Your task to perform on an android device: Open Google Image 0: 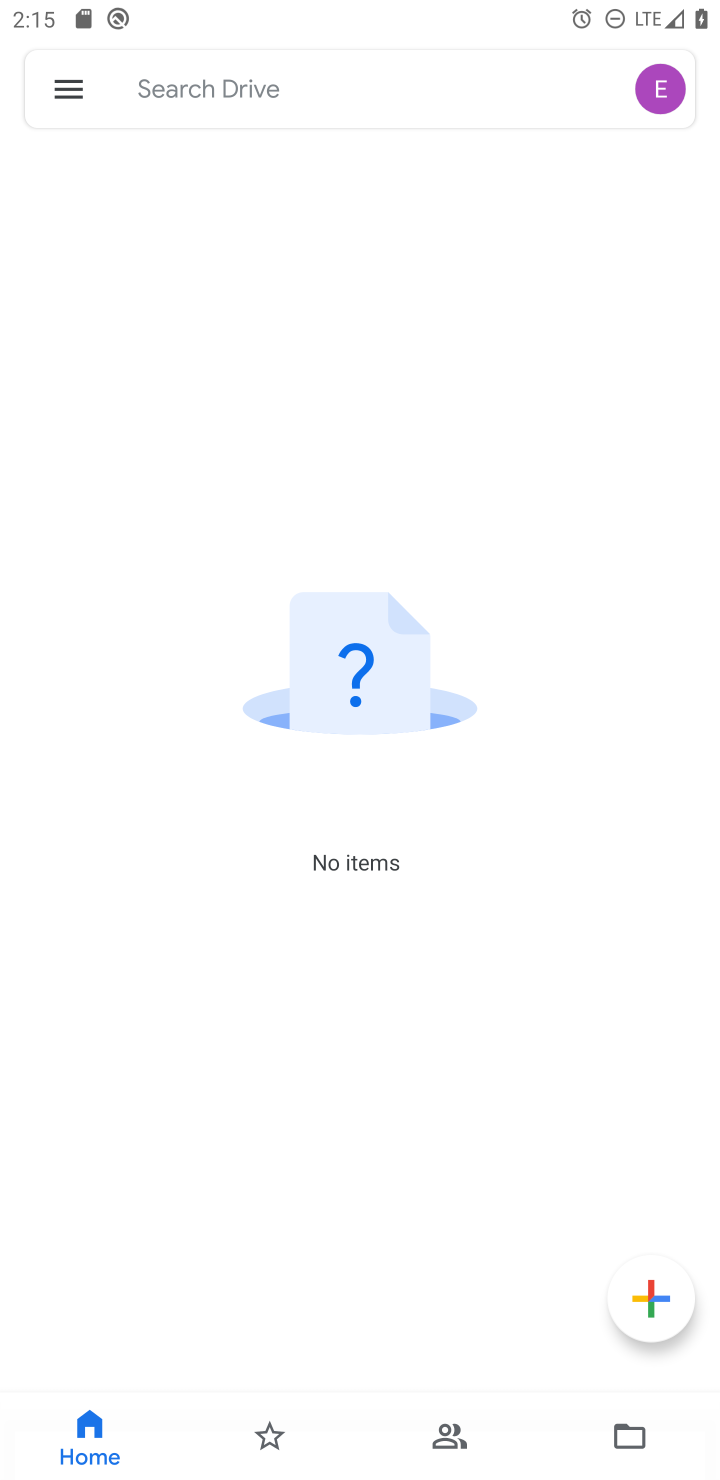
Step 0: press home button
Your task to perform on an android device: Open Google Image 1: 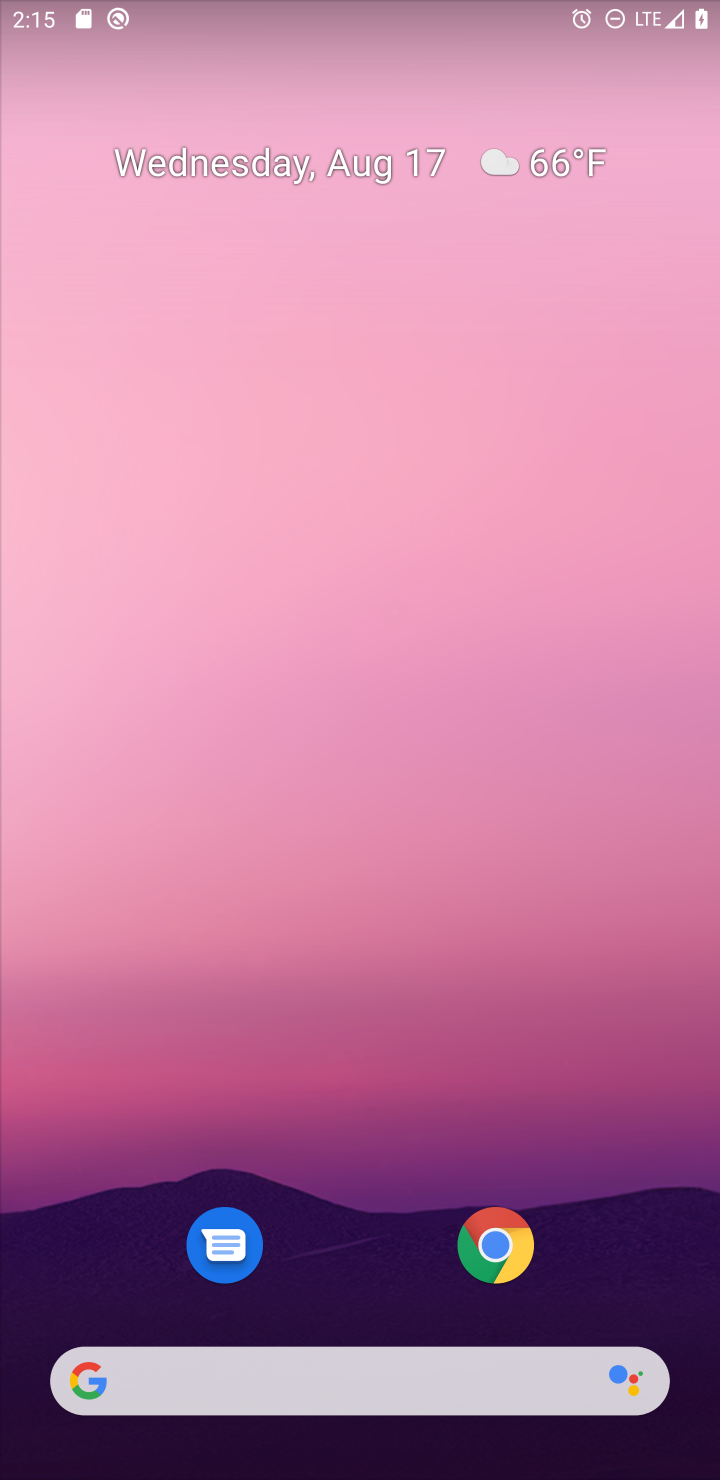
Step 1: drag from (370, 1199) to (377, 162)
Your task to perform on an android device: Open Google Image 2: 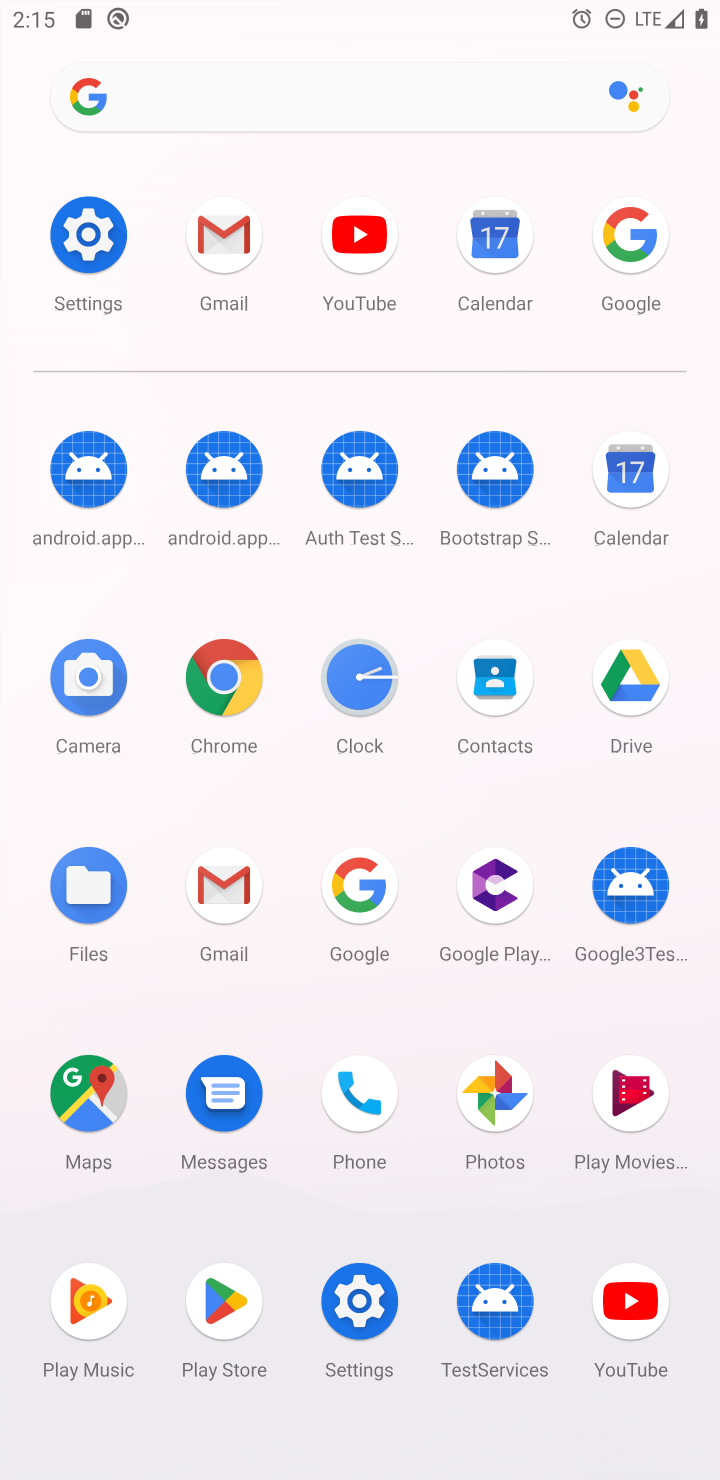
Step 2: click (345, 888)
Your task to perform on an android device: Open Google Image 3: 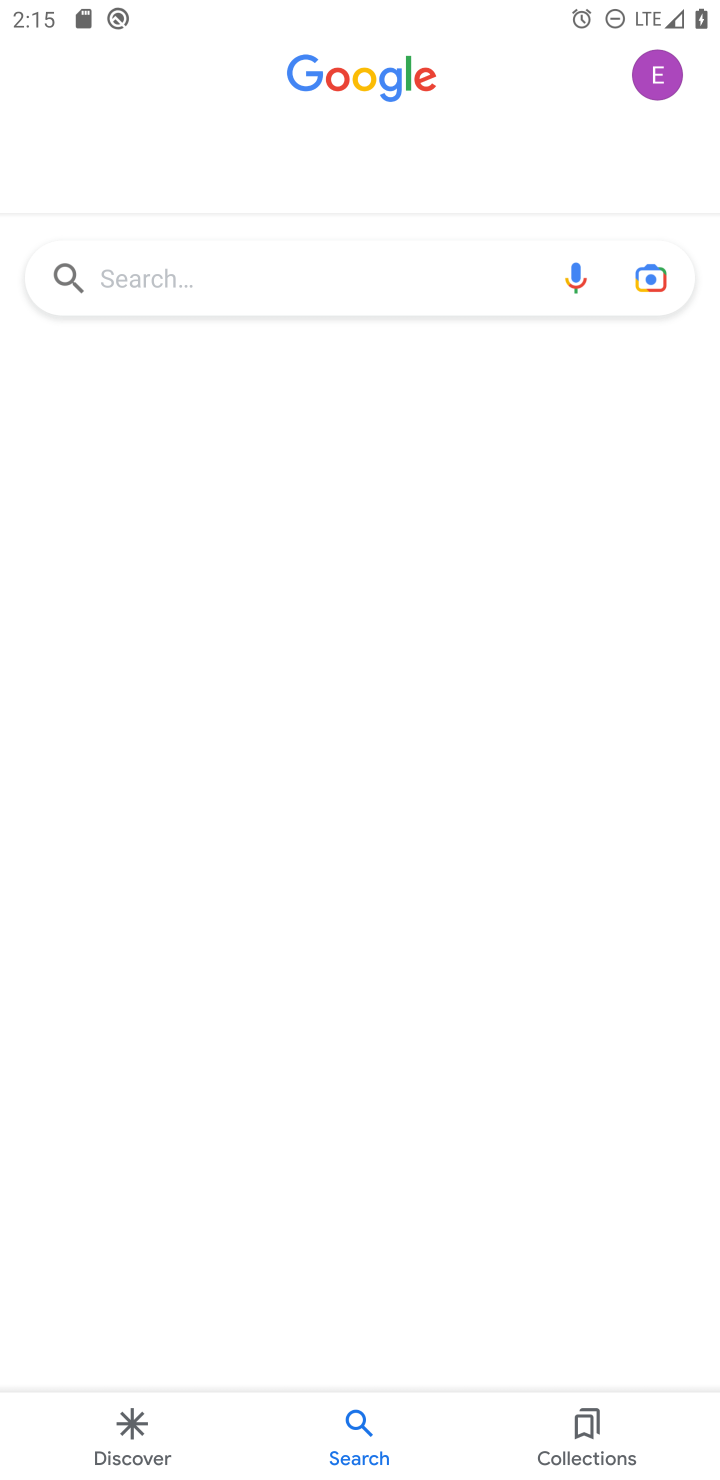
Step 3: task complete